Your task to perform on an android device: search for starred emails in the gmail app Image 0: 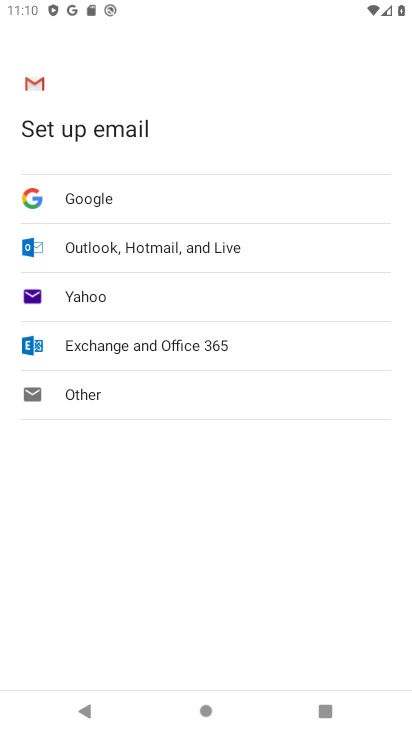
Step 0: press home button
Your task to perform on an android device: search for starred emails in the gmail app Image 1: 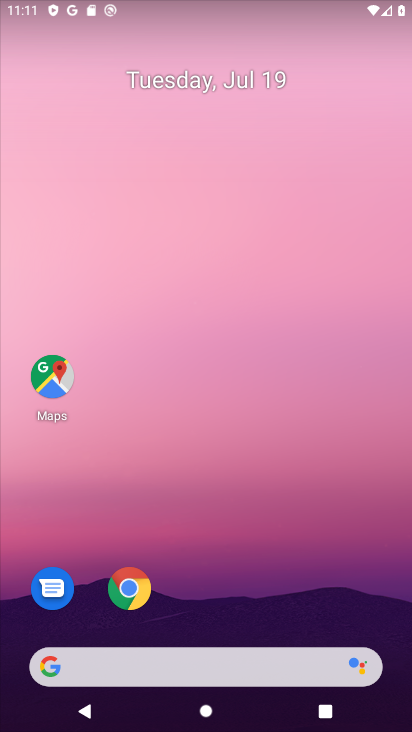
Step 1: drag from (255, 696) to (251, 388)
Your task to perform on an android device: search for starred emails in the gmail app Image 2: 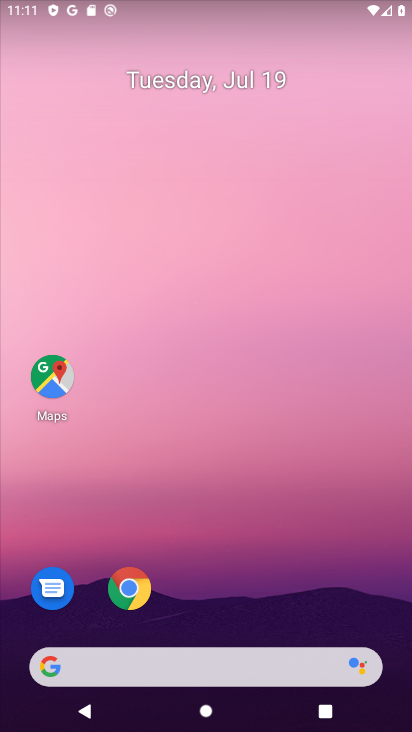
Step 2: drag from (276, 723) to (317, 254)
Your task to perform on an android device: search for starred emails in the gmail app Image 3: 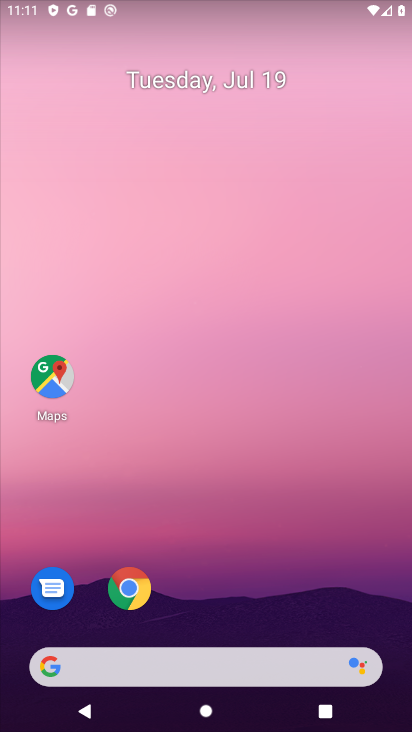
Step 3: drag from (233, 724) to (236, 360)
Your task to perform on an android device: search for starred emails in the gmail app Image 4: 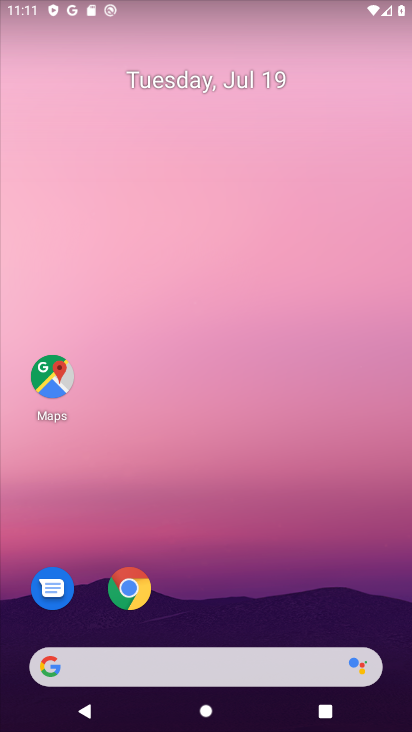
Step 4: drag from (259, 724) to (279, 93)
Your task to perform on an android device: search for starred emails in the gmail app Image 5: 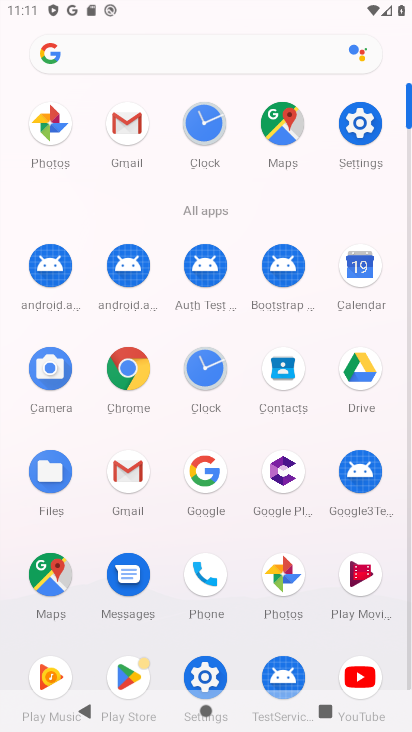
Step 5: click (119, 481)
Your task to perform on an android device: search for starred emails in the gmail app Image 6: 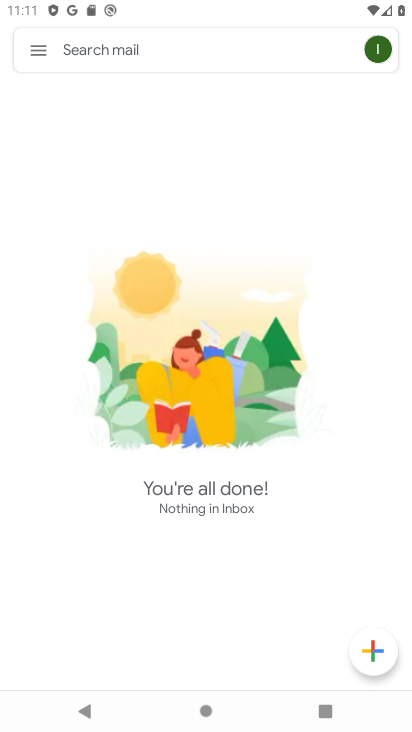
Step 6: task complete